Your task to perform on an android device: open app "Pluto TV - Live TV and Movies" (install if not already installed) and enter user name: "wools@yahoo.com" and password: "misplacing" Image 0: 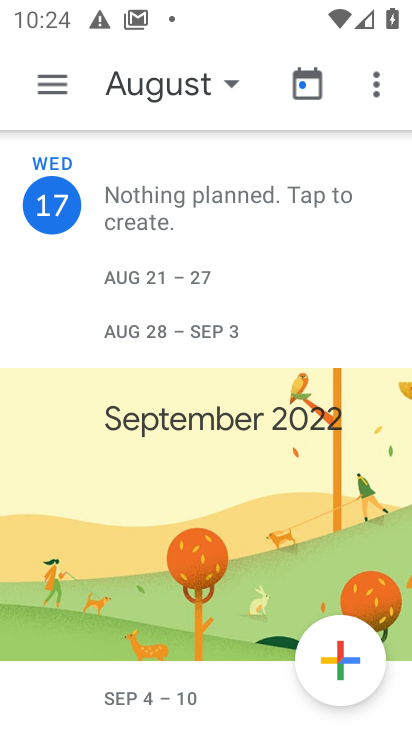
Step 0: press home button
Your task to perform on an android device: open app "Pluto TV - Live TV and Movies" (install if not already installed) and enter user name: "wools@yahoo.com" and password: "misplacing" Image 1: 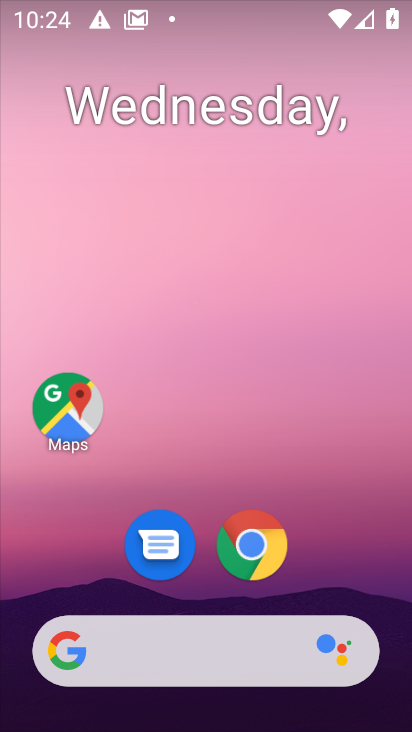
Step 1: drag from (338, 523) to (301, 156)
Your task to perform on an android device: open app "Pluto TV - Live TV and Movies" (install if not already installed) and enter user name: "wools@yahoo.com" and password: "misplacing" Image 2: 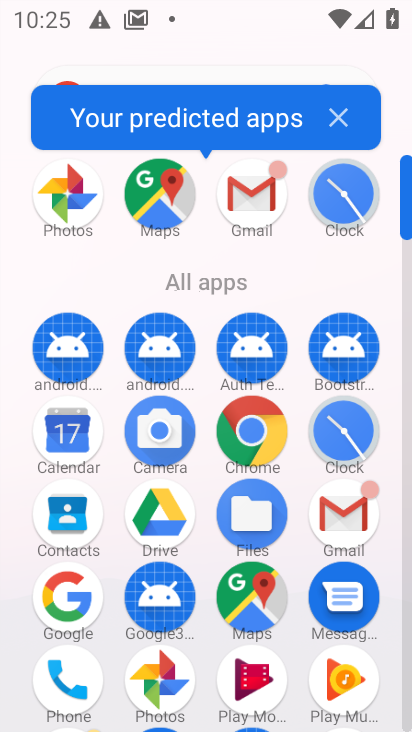
Step 2: drag from (388, 565) to (382, 369)
Your task to perform on an android device: open app "Pluto TV - Live TV and Movies" (install if not already installed) and enter user name: "wools@yahoo.com" and password: "misplacing" Image 3: 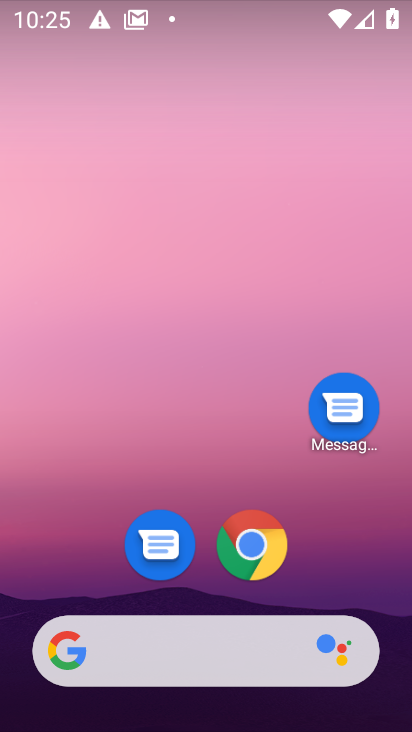
Step 3: drag from (222, 401) to (180, 0)
Your task to perform on an android device: open app "Pluto TV - Live TV and Movies" (install if not already installed) and enter user name: "wools@yahoo.com" and password: "misplacing" Image 4: 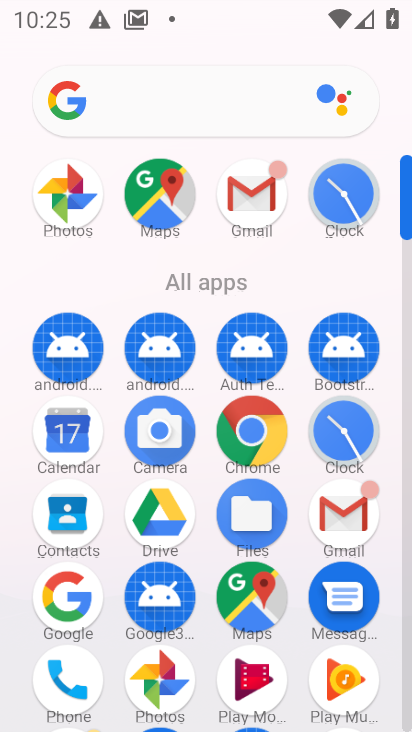
Step 4: drag from (311, 282) to (307, 82)
Your task to perform on an android device: open app "Pluto TV - Live TV and Movies" (install if not already installed) and enter user name: "wools@yahoo.com" and password: "misplacing" Image 5: 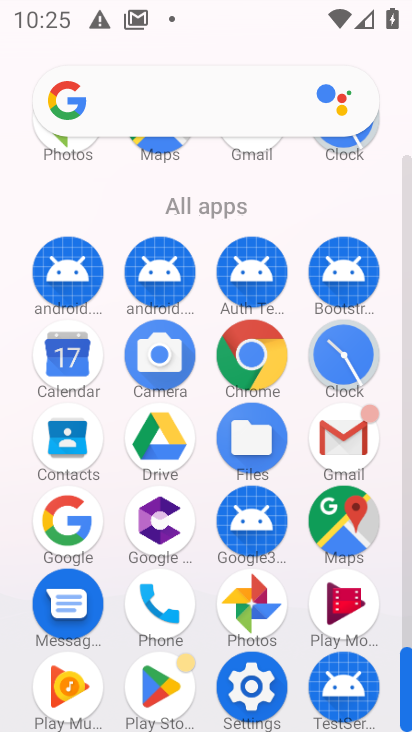
Step 5: click (164, 682)
Your task to perform on an android device: open app "Pluto TV - Live TV and Movies" (install if not already installed) and enter user name: "wools@yahoo.com" and password: "misplacing" Image 6: 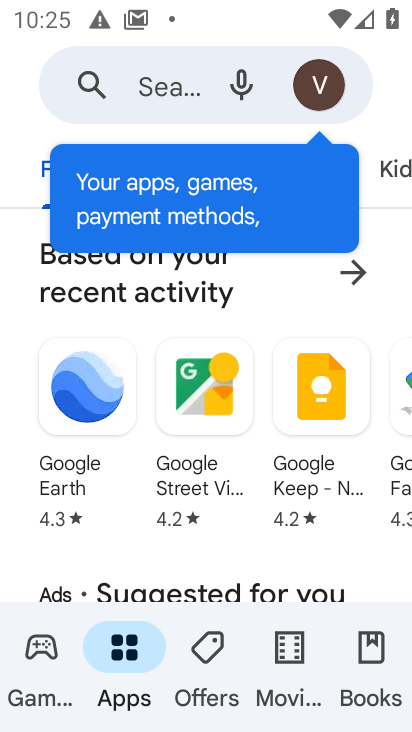
Step 6: click (159, 95)
Your task to perform on an android device: open app "Pluto TV - Live TV and Movies" (install if not already installed) and enter user name: "wools@yahoo.com" and password: "misplacing" Image 7: 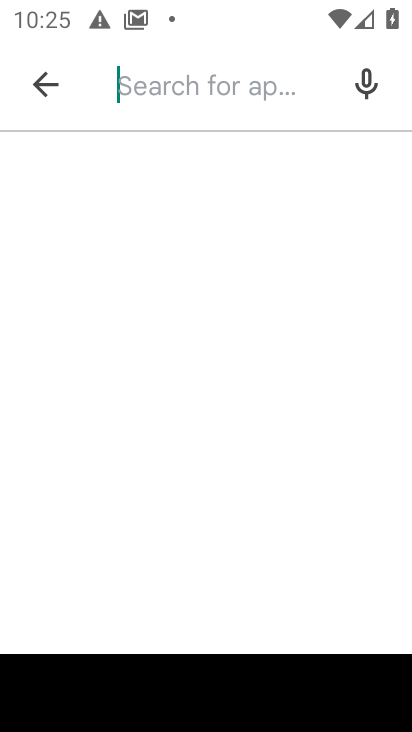
Step 7: type "pluto tv"
Your task to perform on an android device: open app "Pluto TV - Live TV and Movies" (install if not already installed) and enter user name: "wools@yahoo.com" and password: "misplacing" Image 8: 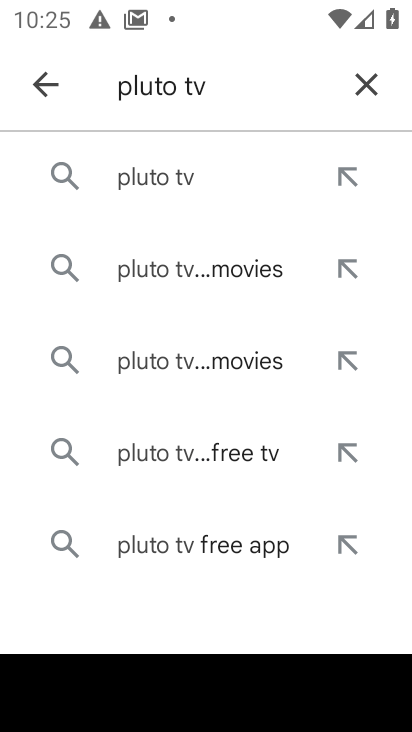
Step 8: click (237, 273)
Your task to perform on an android device: open app "Pluto TV - Live TV and Movies" (install if not already installed) and enter user name: "wools@yahoo.com" and password: "misplacing" Image 9: 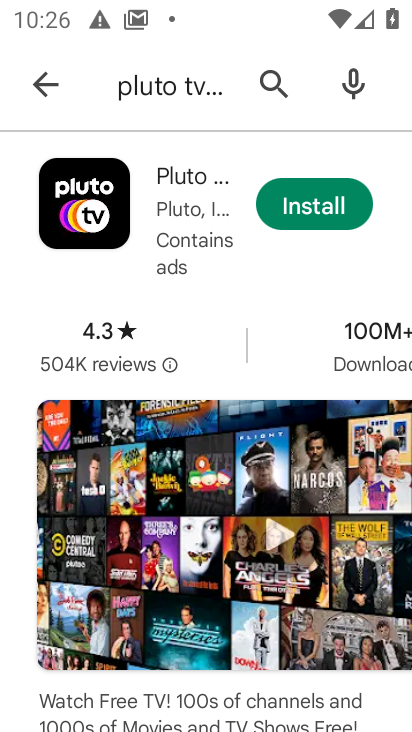
Step 9: click (296, 212)
Your task to perform on an android device: open app "Pluto TV - Live TV and Movies" (install if not already installed) and enter user name: "wools@yahoo.com" and password: "misplacing" Image 10: 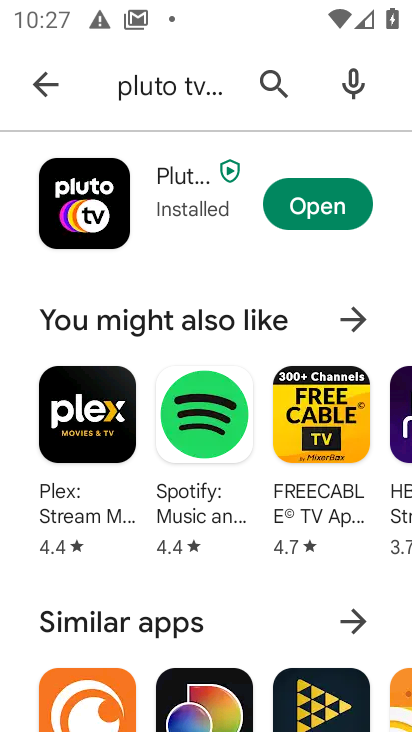
Step 10: click (296, 212)
Your task to perform on an android device: open app "Pluto TV - Live TV and Movies" (install if not already installed) and enter user name: "wools@yahoo.com" and password: "misplacing" Image 11: 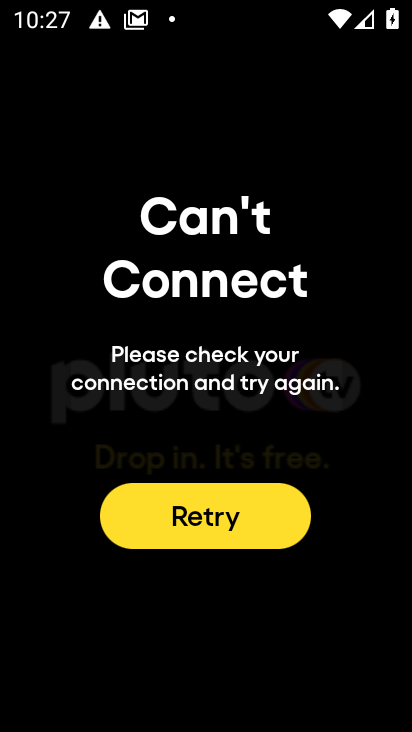
Step 11: click (266, 520)
Your task to perform on an android device: open app "Pluto TV - Live TV and Movies" (install if not already installed) and enter user name: "wools@yahoo.com" and password: "misplacing" Image 12: 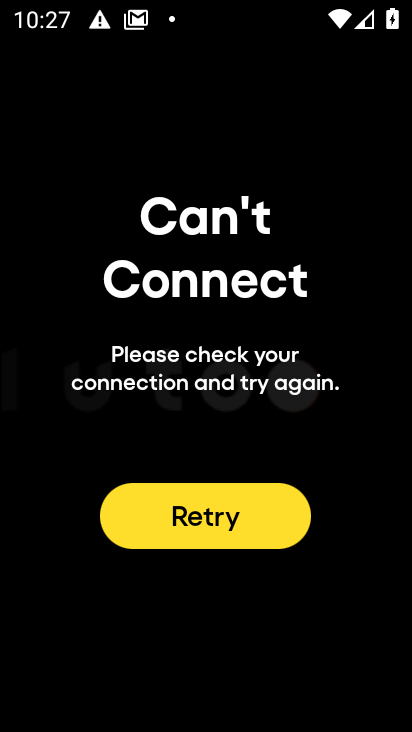
Step 12: task complete